Your task to perform on an android device: What is the recent news? Image 0: 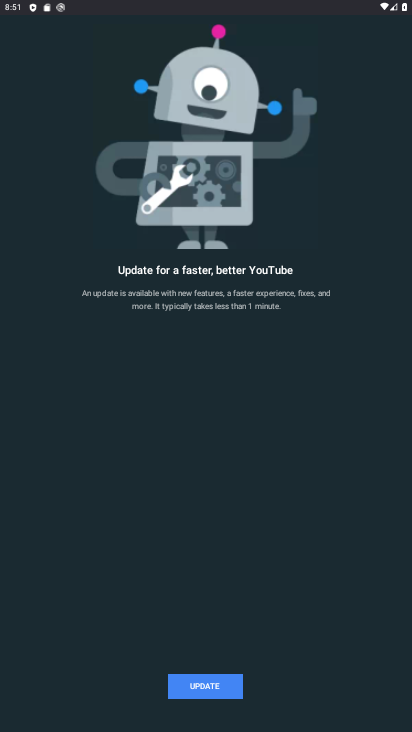
Step 0: drag from (309, 712) to (381, 360)
Your task to perform on an android device: What is the recent news? Image 1: 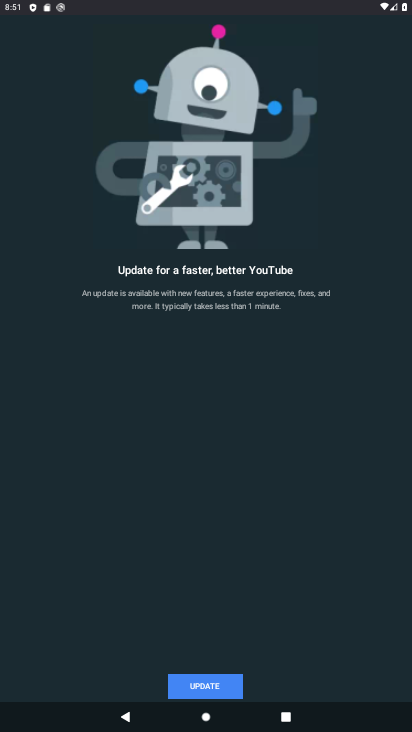
Step 1: press home button
Your task to perform on an android device: What is the recent news? Image 2: 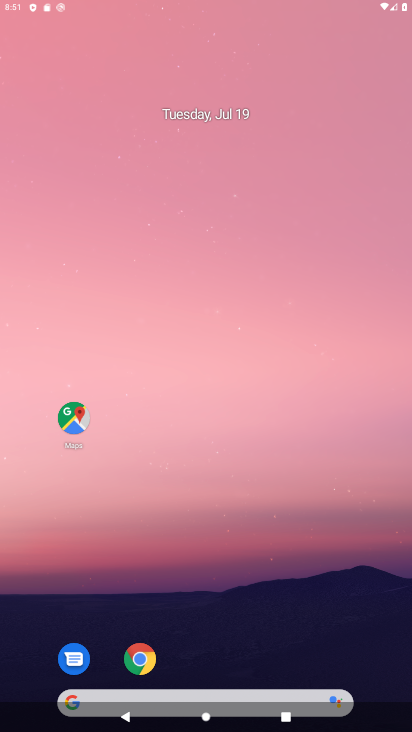
Step 2: drag from (160, 549) to (187, 422)
Your task to perform on an android device: What is the recent news? Image 3: 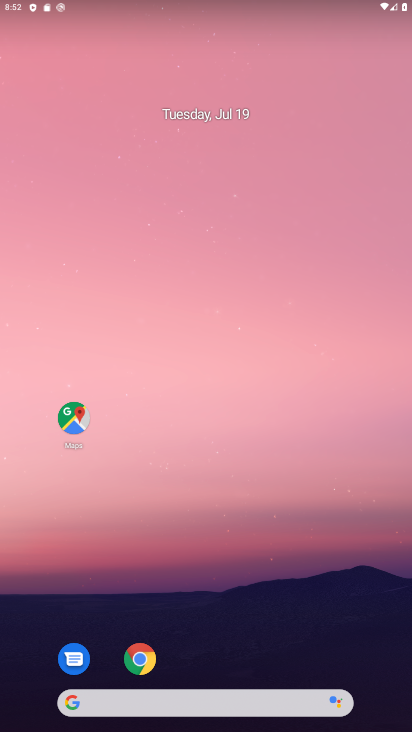
Step 3: drag from (192, 644) to (196, 342)
Your task to perform on an android device: What is the recent news? Image 4: 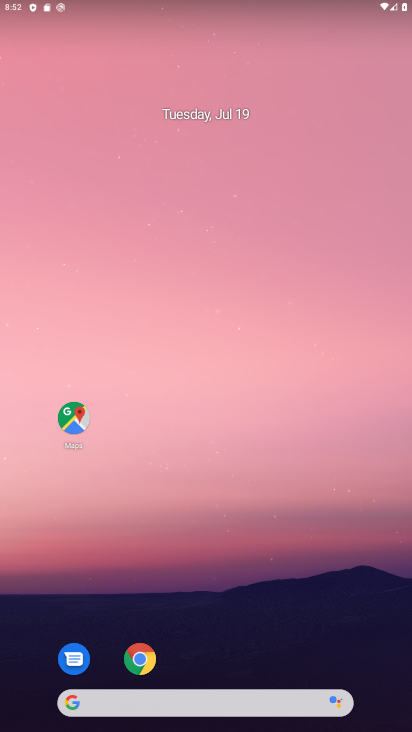
Step 4: drag from (195, 642) to (244, 255)
Your task to perform on an android device: What is the recent news? Image 5: 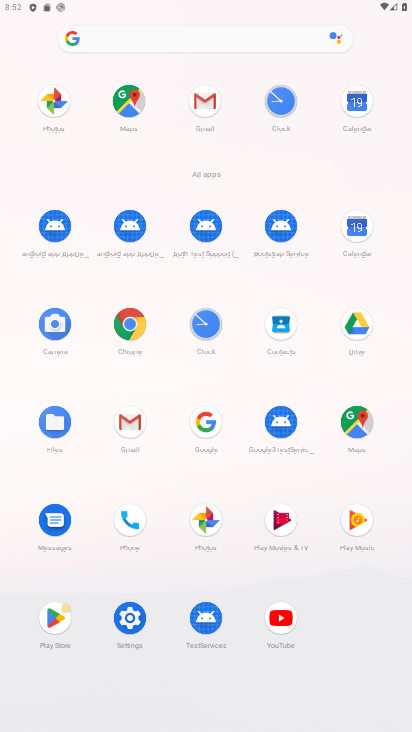
Step 5: click (145, 38)
Your task to perform on an android device: What is the recent news? Image 6: 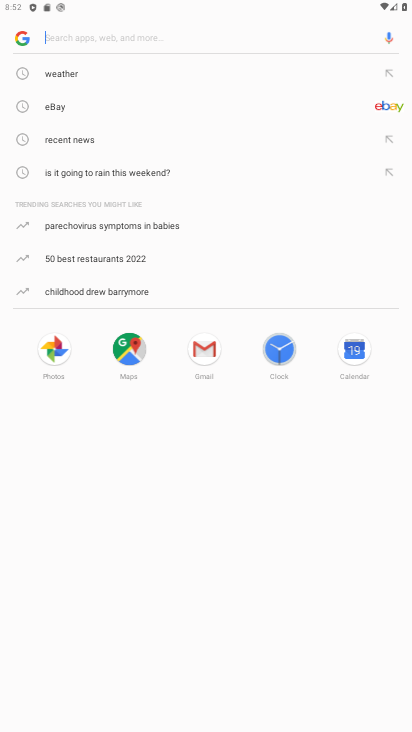
Step 6: click (81, 142)
Your task to perform on an android device: What is the recent news? Image 7: 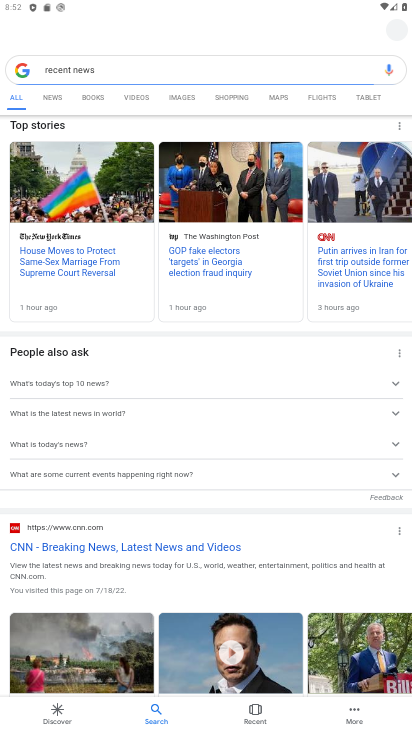
Step 7: drag from (180, 438) to (194, 272)
Your task to perform on an android device: What is the recent news? Image 8: 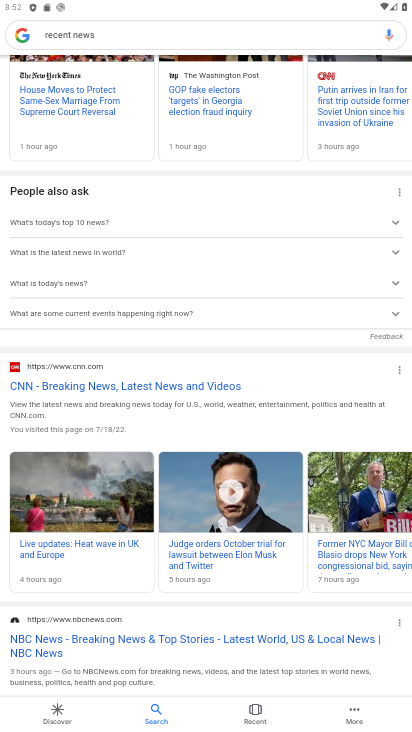
Step 8: drag from (202, 194) to (209, 412)
Your task to perform on an android device: What is the recent news? Image 9: 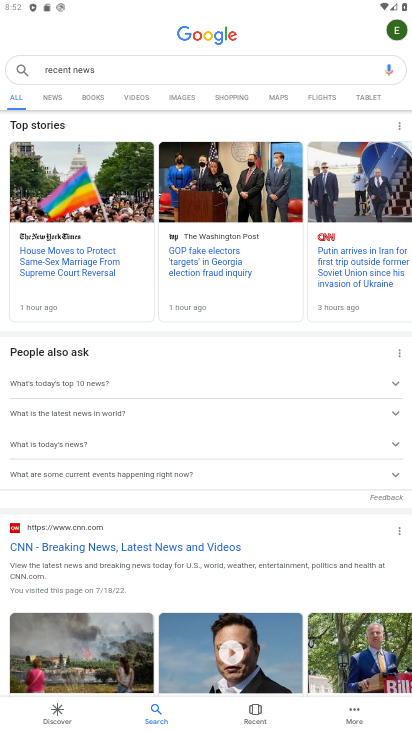
Step 9: drag from (256, 380) to (280, 221)
Your task to perform on an android device: What is the recent news? Image 10: 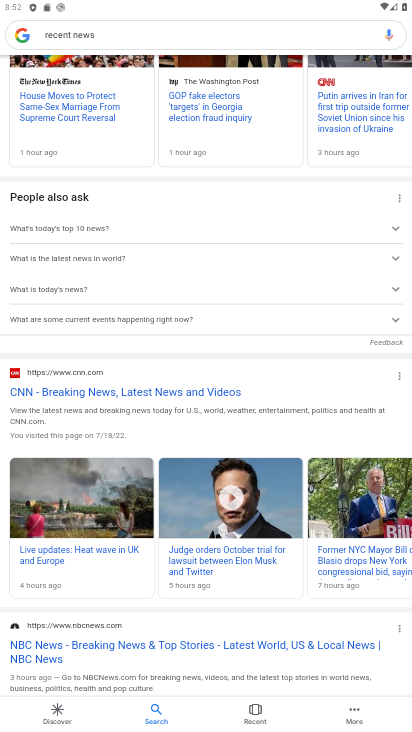
Step 10: drag from (191, 185) to (260, 729)
Your task to perform on an android device: What is the recent news? Image 11: 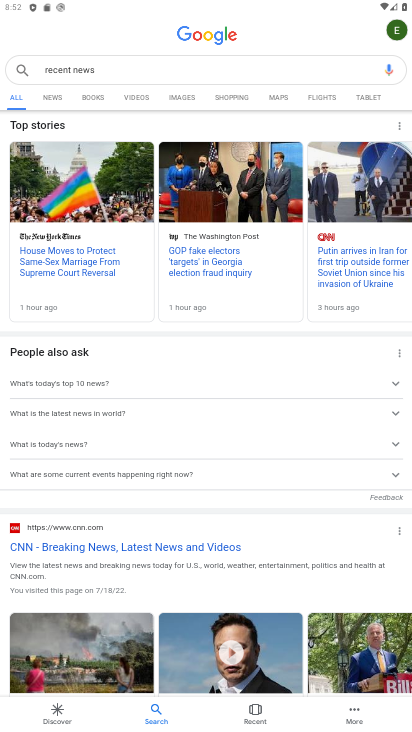
Step 11: drag from (224, 293) to (264, 594)
Your task to perform on an android device: What is the recent news? Image 12: 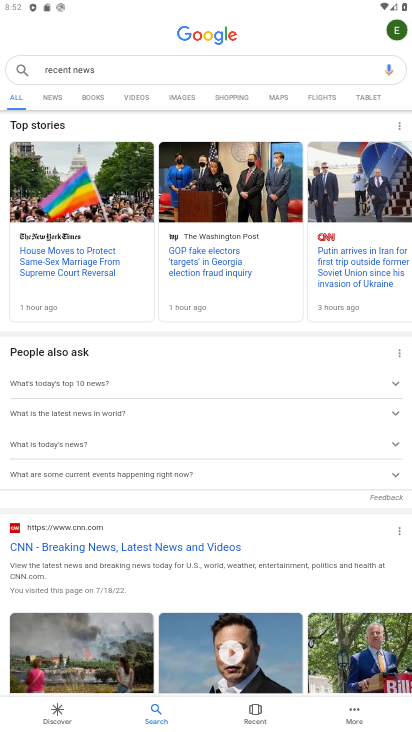
Step 12: click (122, 547)
Your task to perform on an android device: What is the recent news? Image 13: 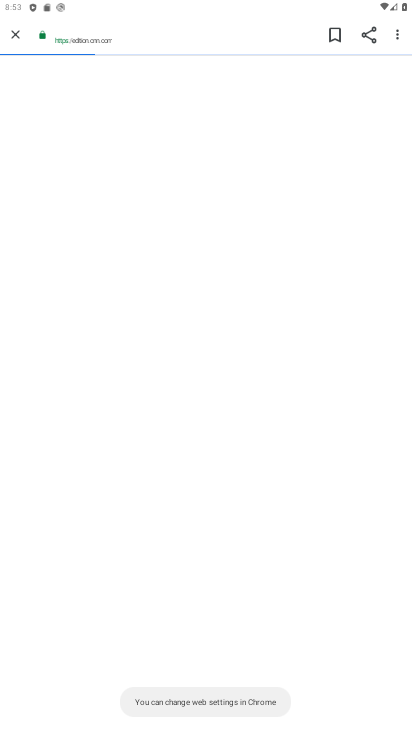
Step 13: task complete